Your task to perform on an android device: Open calendar and show me the fourth week of next month Image 0: 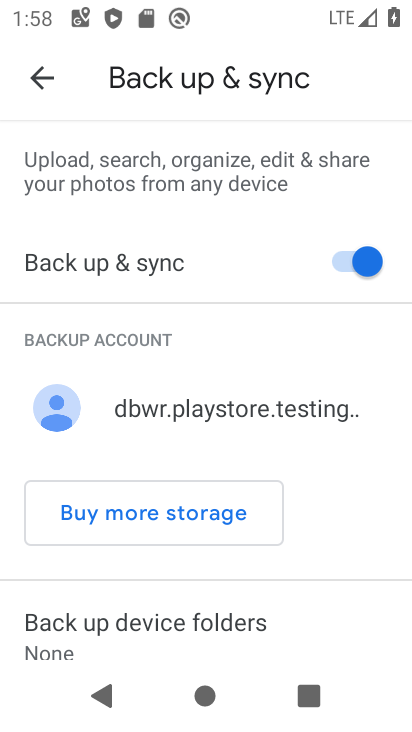
Step 0: press home button
Your task to perform on an android device: Open calendar and show me the fourth week of next month Image 1: 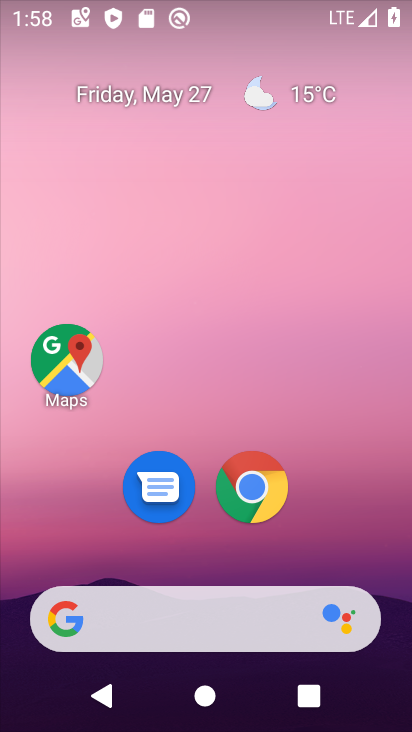
Step 1: drag from (353, 419) to (338, 116)
Your task to perform on an android device: Open calendar and show me the fourth week of next month Image 2: 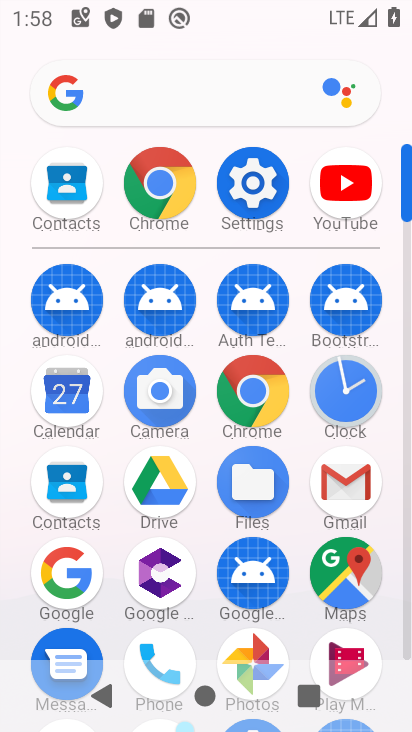
Step 2: click (54, 387)
Your task to perform on an android device: Open calendar and show me the fourth week of next month Image 3: 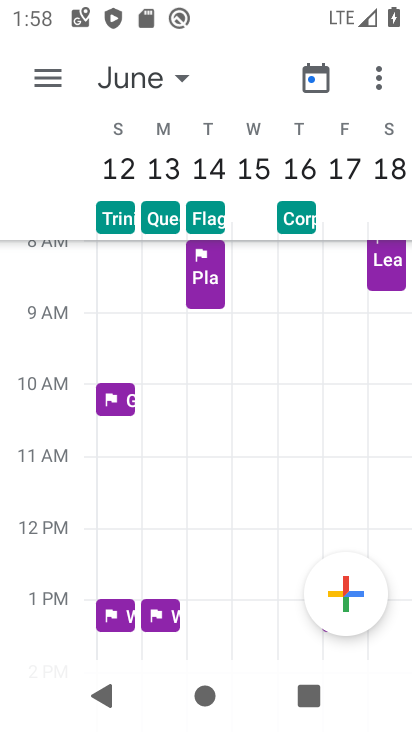
Step 3: click (144, 70)
Your task to perform on an android device: Open calendar and show me the fourth week of next month Image 4: 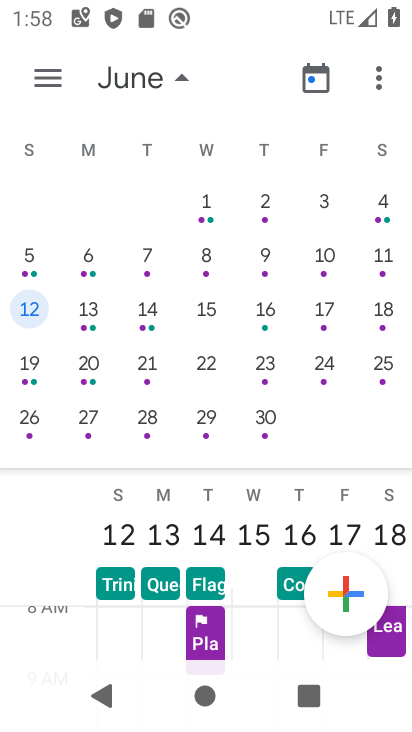
Step 4: click (36, 257)
Your task to perform on an android device: Open calendar and show me the fourth week of next month Image 5: 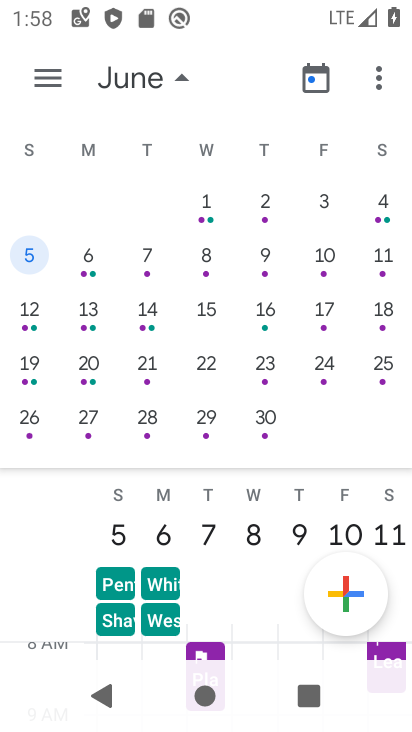
Step 5: task complete